Your task to perform on an android device: turn off wifi Image 0: 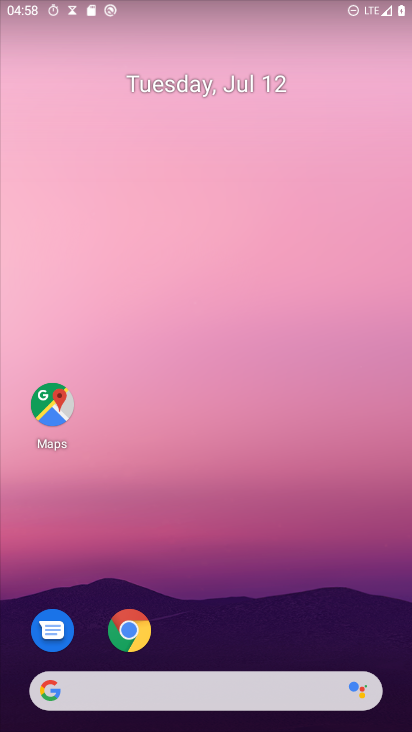
Step 0: drag from (291, 684) to (302, 204)
Your task to perform on an android device: turn off wifi Image 1: 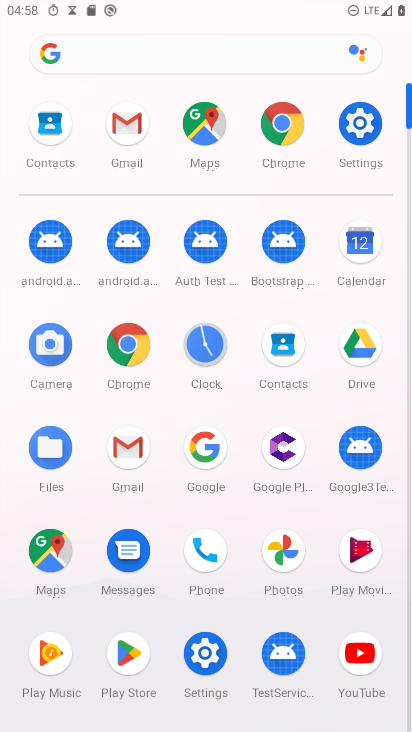
Step 1: click (362, 115)
Your task to perform on an android device: turn off wifi Image 2: 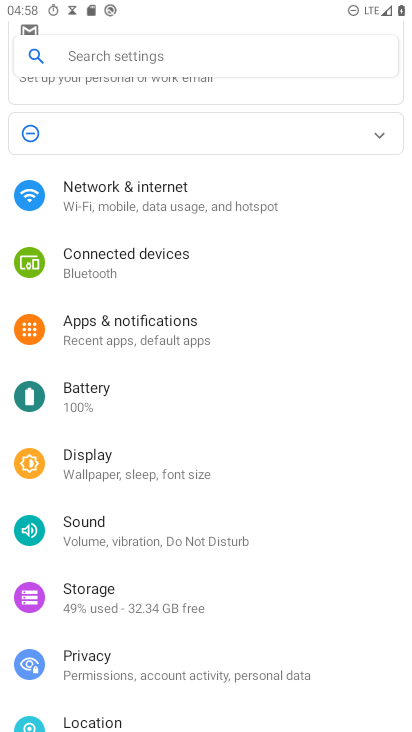
Step 2: click (157, 191)
Your task to perform on an android device: turn off wifi Image 3: 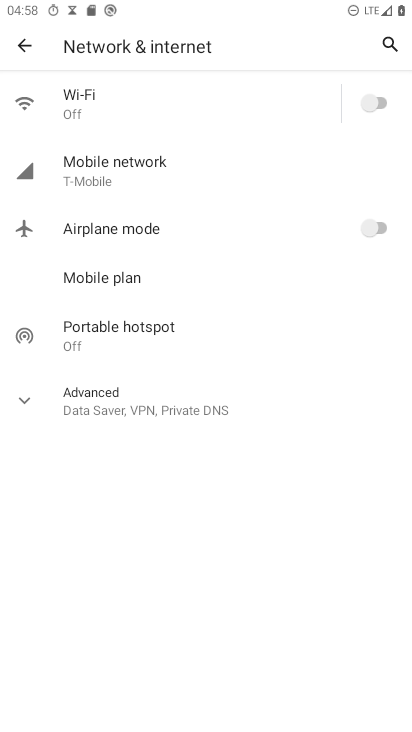
Step 3: task complete